Your task to perform on an android device: toggle wifi Image 0: 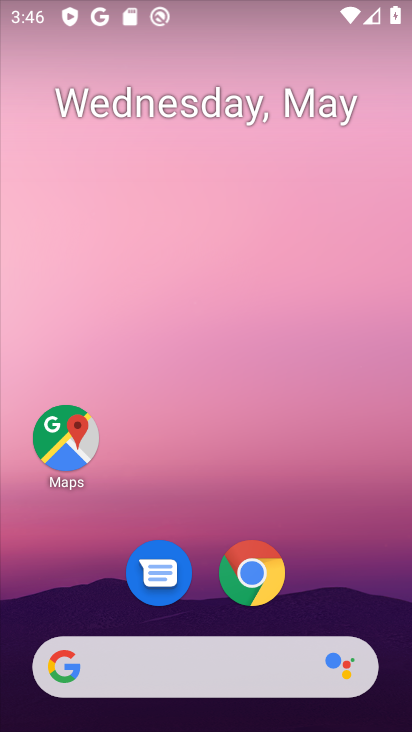
Step 0: drag from (243, 689) to (196, 91)
Your task to perform on an android device: toggle wifi Image 1: 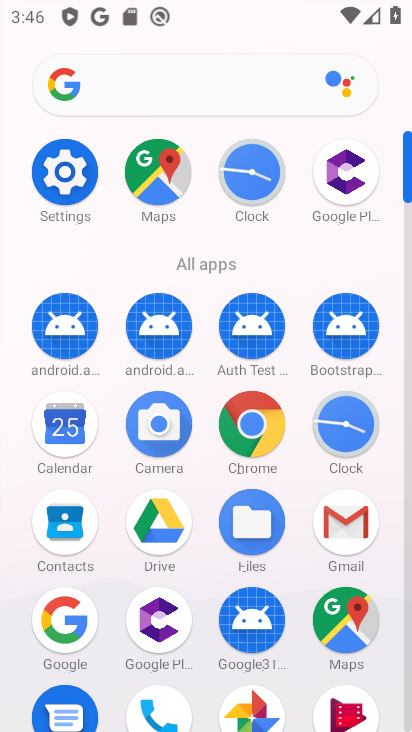
Step 1: click (76, 159)
Your task to perform on an android device: toggle wifi Image 2: 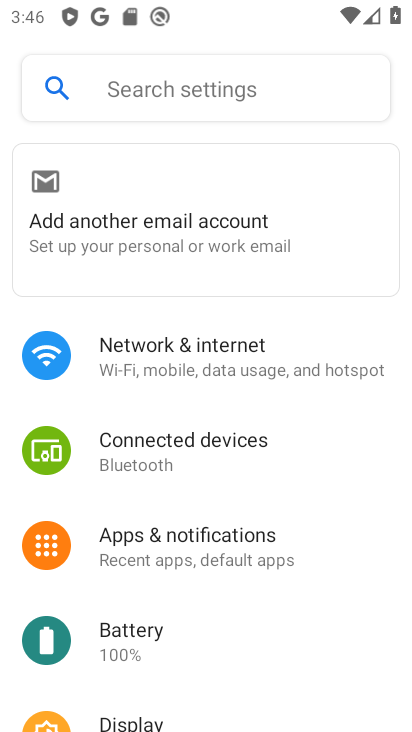
Step 2: click (183, 348)
Your task to perform on an android device: toggle wifi Image 3: 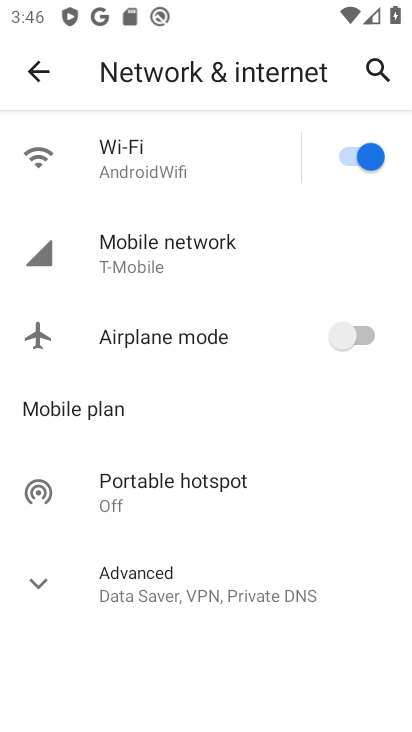
Step 3: click (149, 154)
Your task to perform on an android device: toggle wifi Image 4: 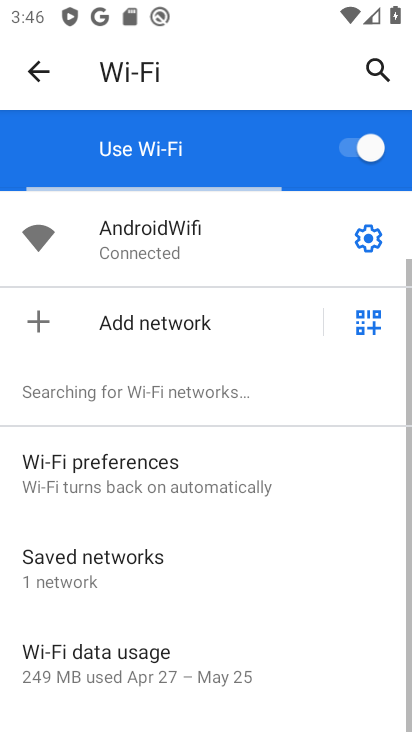
Step 4: task complete